Your task to perform on an android device: turn off sleep mode Image 0: 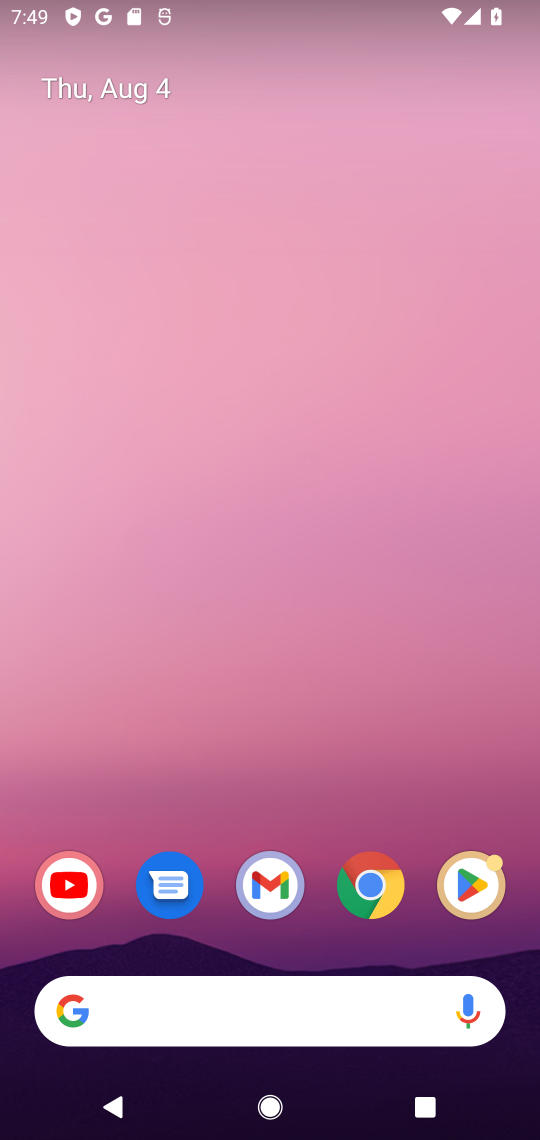
Step 0: press home button
Your task to perform on an android device: turn off sleep mode Image 1: 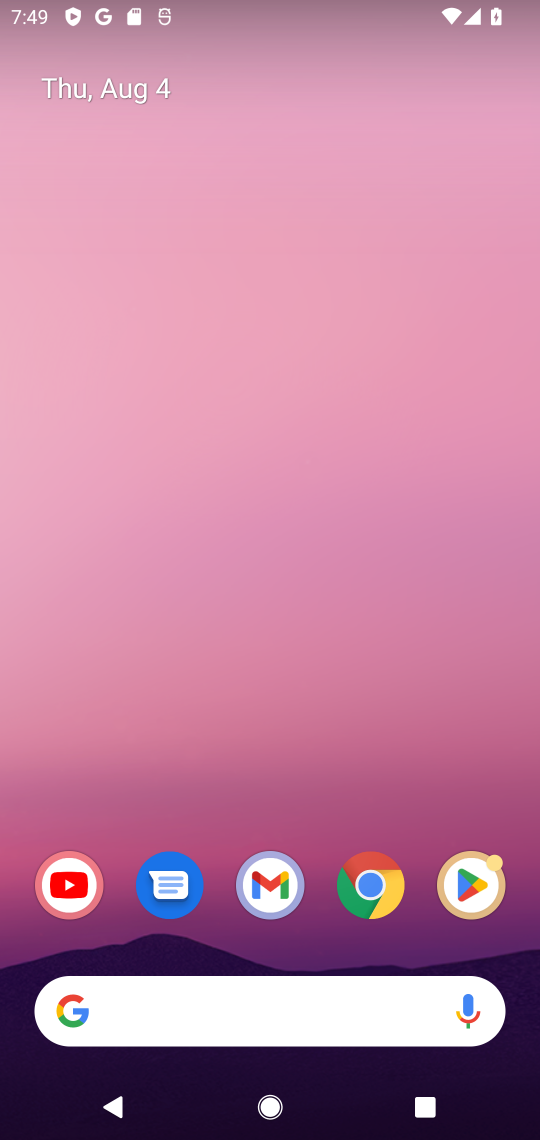
Step 1: drag from (329, 831) to (348, 73)
Your task to perform on an android device: turn off sleep mode Image 2: 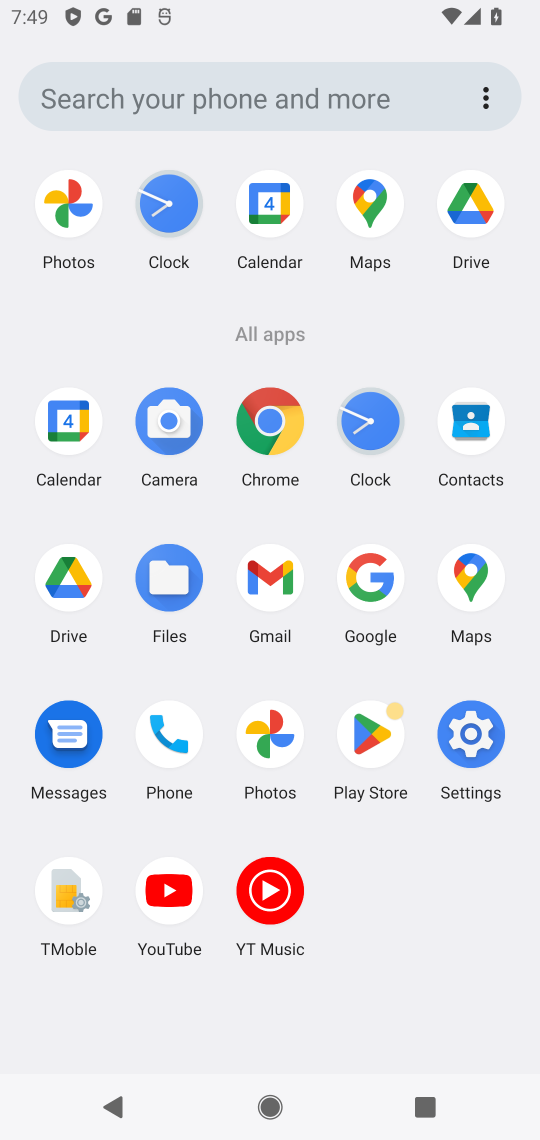
Step 2: click (464, 734)
Your task to perform on an android device: turn off sleep mode Image 3: 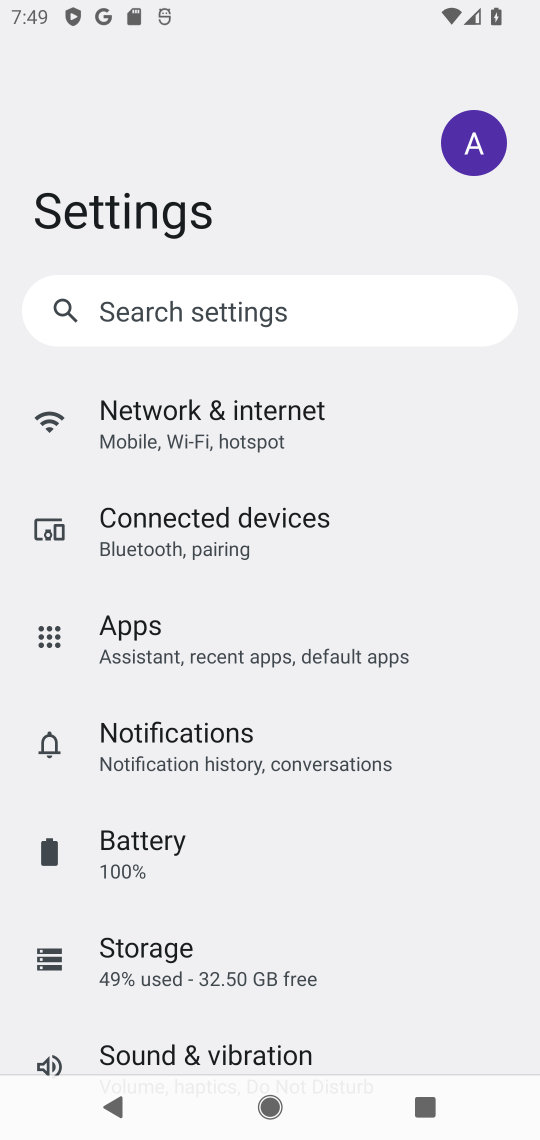
Step 3: drag from (216, 968) to (251, 345)
Your task to perform on an android device: turn off sleep mode Image 4: 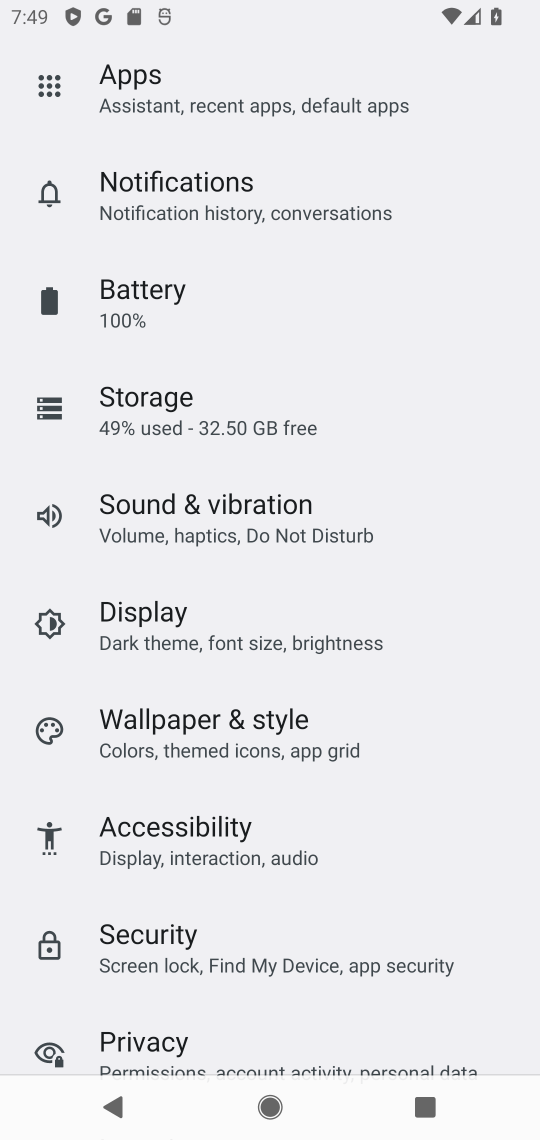
Step 4: click (203, 606)
Your task to perform on an android device: turn off sleep mode Image 5: 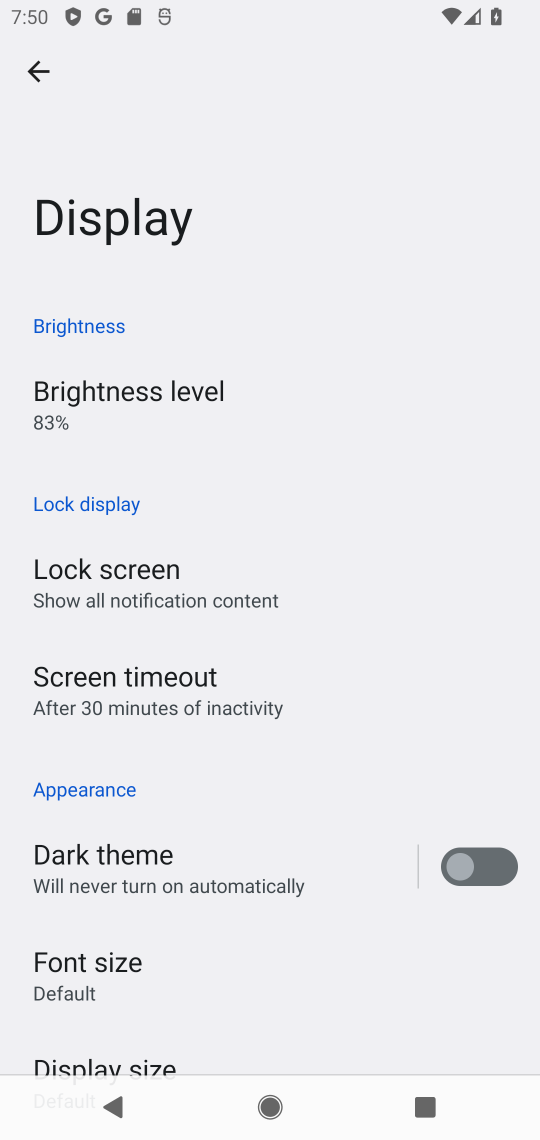
Step 5: task complete